Your task to perform on an android device: Open Chrome and go to settings Image 0: 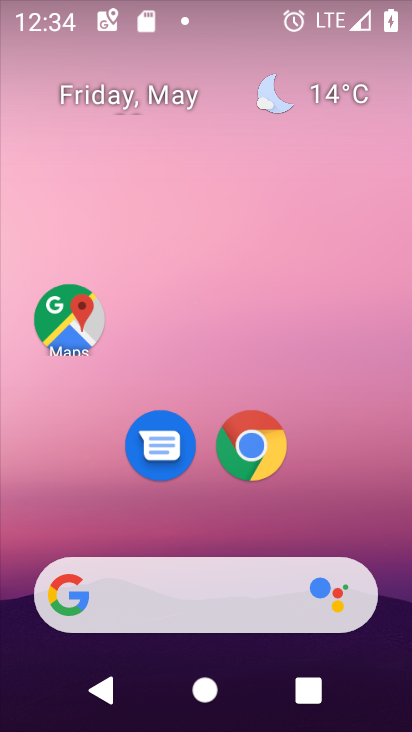
Step 0: click (253, 447)
Your task to perform on an android device: Open Chrome and go to settings Image 1: 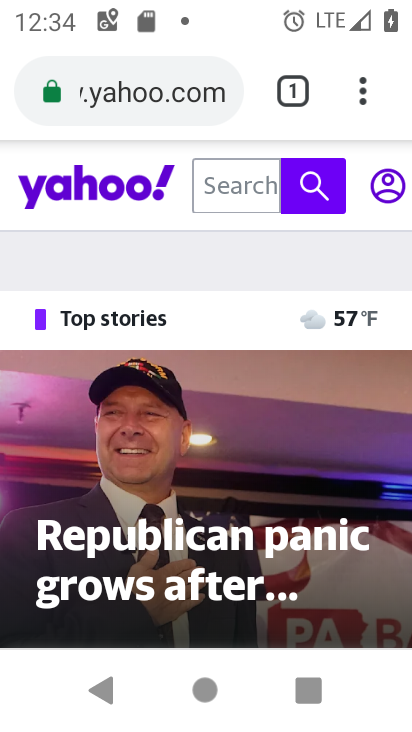
Step 1: click (354, 96)
Your task to perform on an android device: Open Chrome and go to settings Image 2: 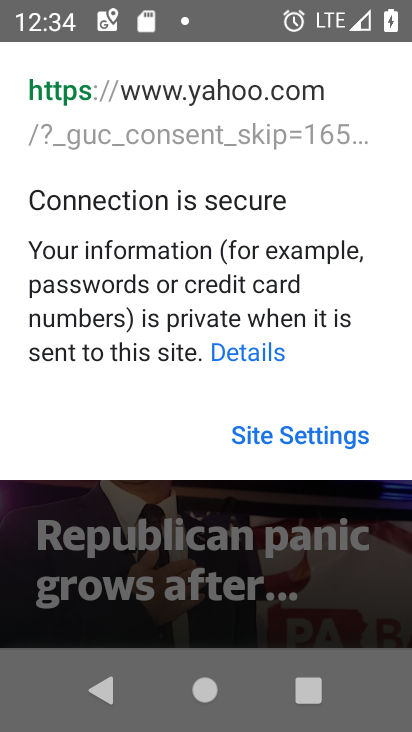
Step 2: press home button
Your task to perform on an android device: Open Chrome and go to settings Image 3: 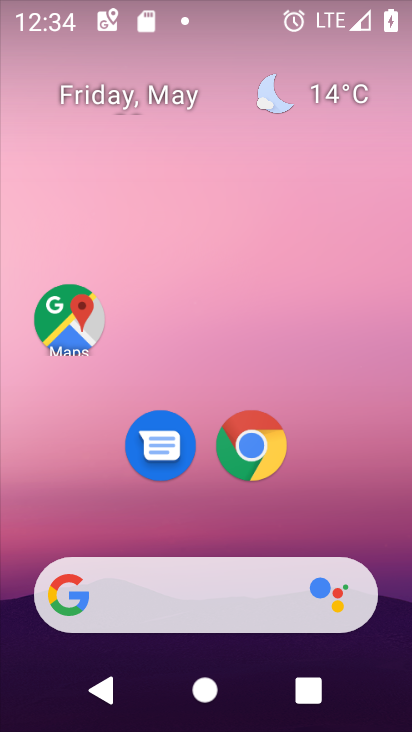
Step 3: click (256, 463)
Your task to perform on an android device: Open Chrome and go to settings Image 4: 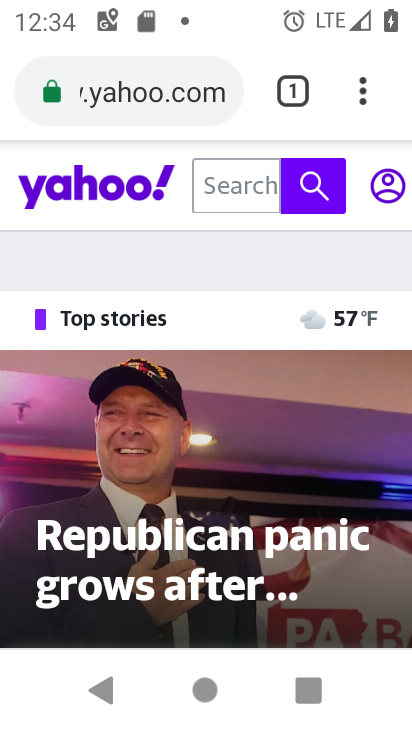
Step 4: click (364, 89)
Your task to perform on an android device: Open Chrome and go to settings Image 5: 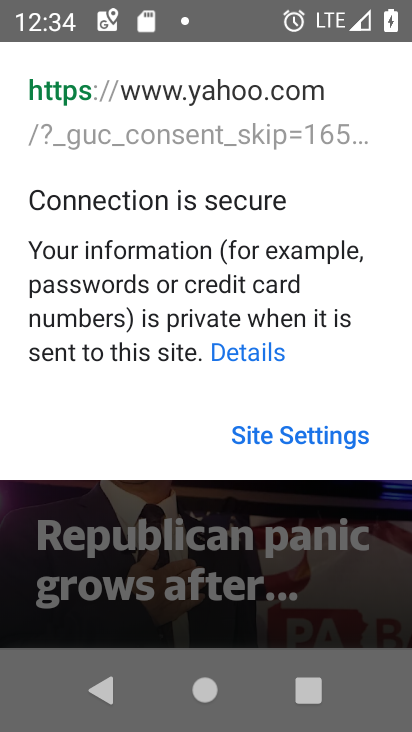
Step 5: press back button
Your task to perform on an android device: Open Chrome and go to settings Image 6: 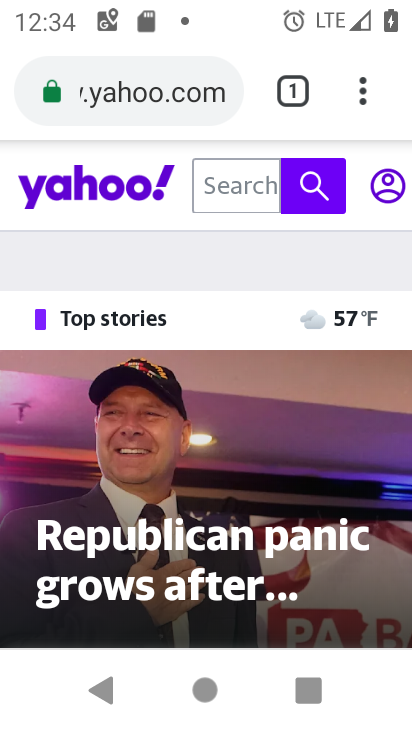
Step 6: click (355, 93)
Your task to perform on an android device: Open Chrome and go to settings Image 7: 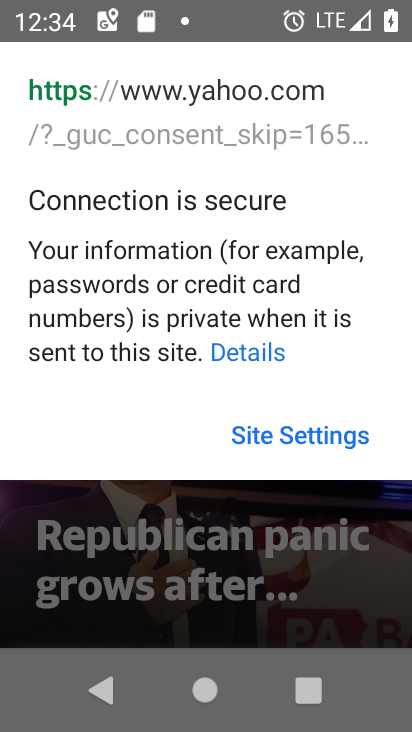
Step 7: press back button
Your task to perform on an android device: Open Chrome and go to settings Image 8: 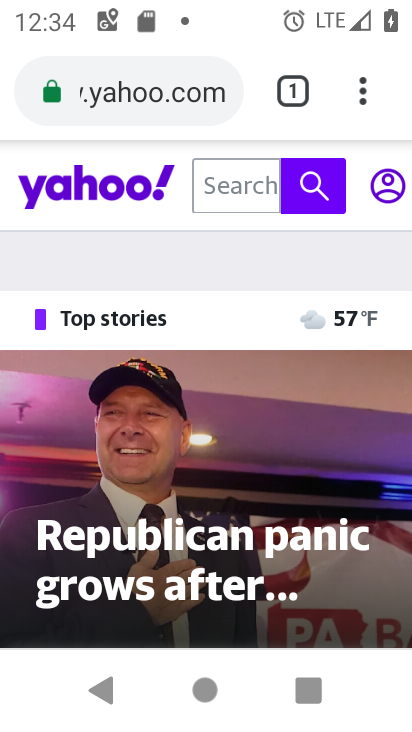
Step 8: click (367, 95)
Your task to perform on an android device: Open Chrome and go to settings Image 9: 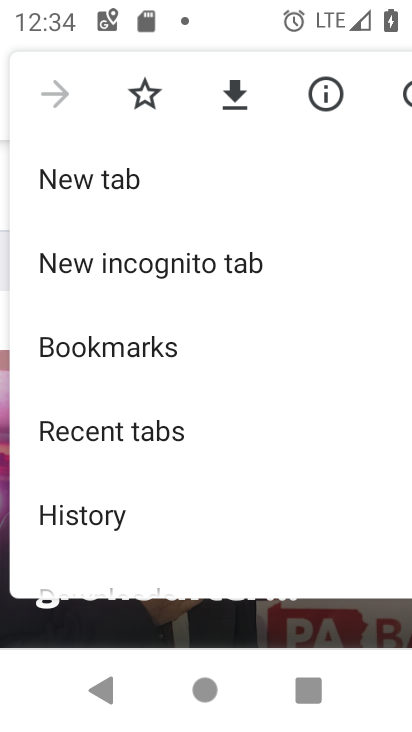
Step 9: drag from (116, 497) to (219, 144)
Your task to perform on an android device: Open Chrome and go to settings Image 10: 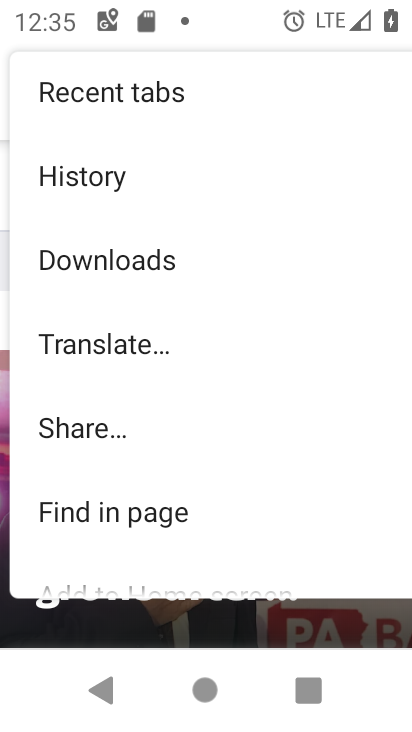
Step 10: drag from (72, 548) to (182, 180)
Your task to perform on an android device: Open Chrome and go to settings Image 11: 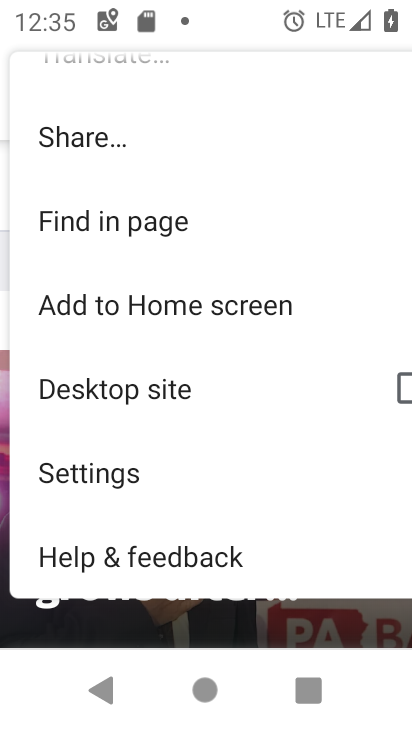
Step 11: click (74, 475)
Your task to perform on an android device: Open Chrome and go to settings Image 12: 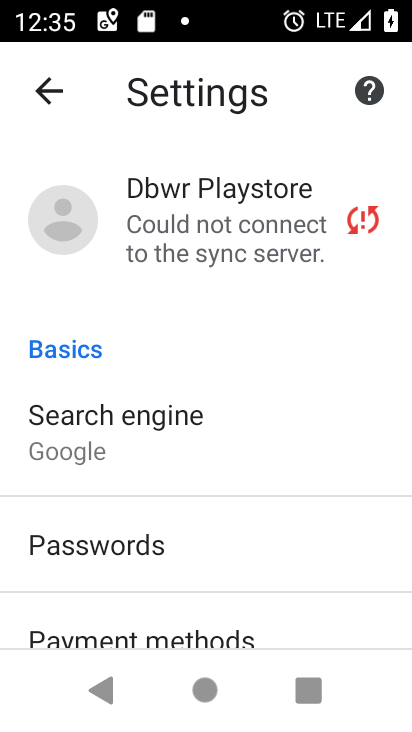
Step 12: task complete